Your task to perform on an android device: turn off sleep mode Image 0: 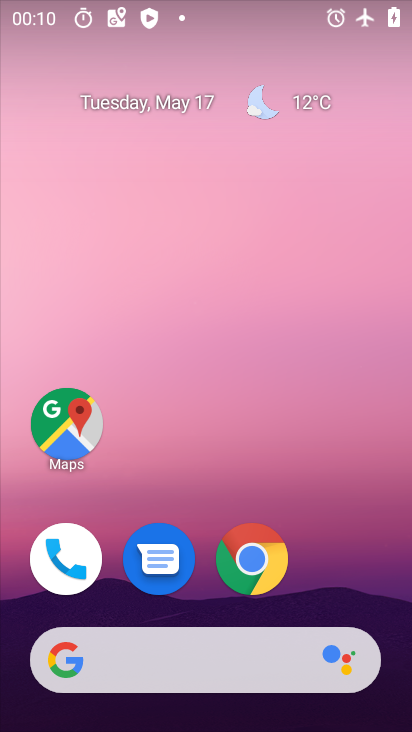
Step 0: drag from (246, 13) to (293, 610)
Your task to perform on an android device: turn off sleep mode Image 1: 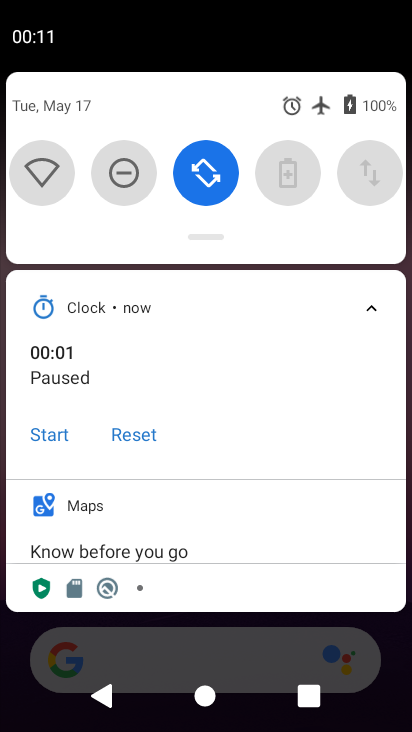
Step 1: press home button
Your task to perform on an android device: turn off sleep mode Image 2: 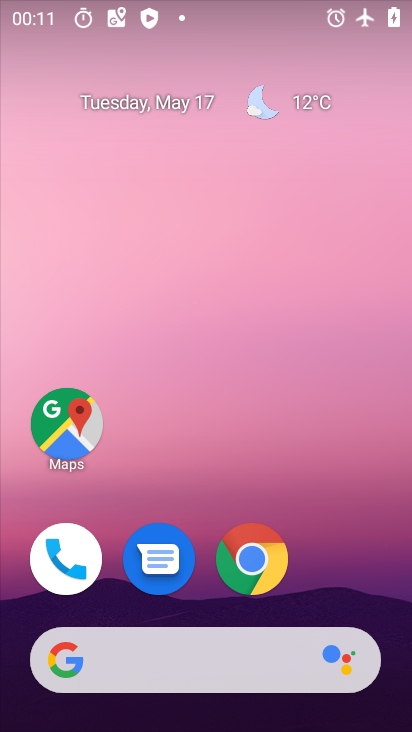
Step 2: drag from (323, 434) to (285, 63)
Your task to perform on an android device: turn off sleep mode Image 3: 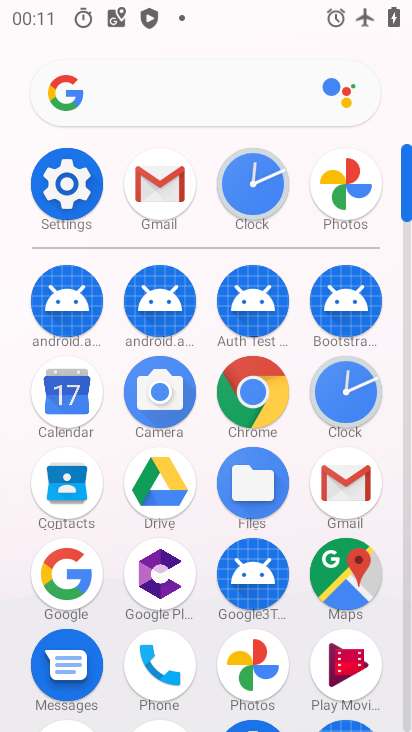
Step 3: click (65, 180)
Your task to perform on an android device: turn off sleep mode Image 4: 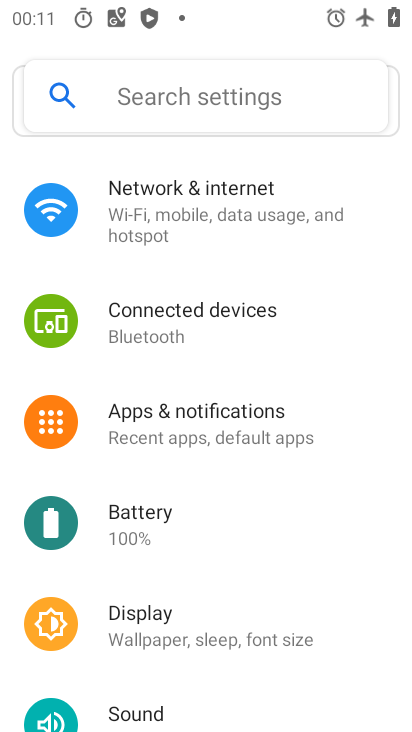
Step 4: click (225, 622)
Your task to perform on an android device: turn off sleep mode Image 5: 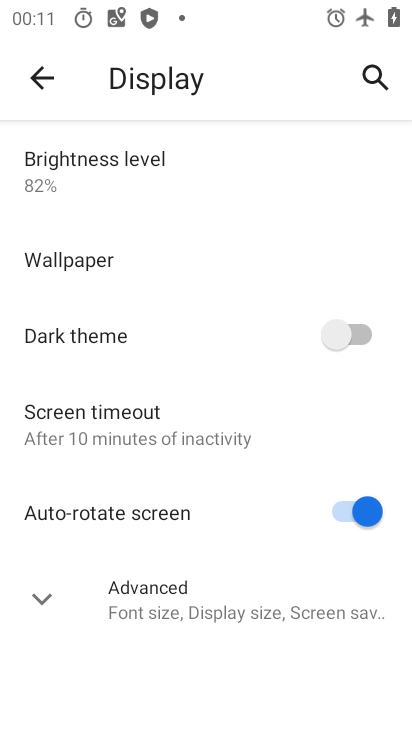
Step 5: click (97, 432)
Your task to perform on an android device: turn off sleep mode Image 6: 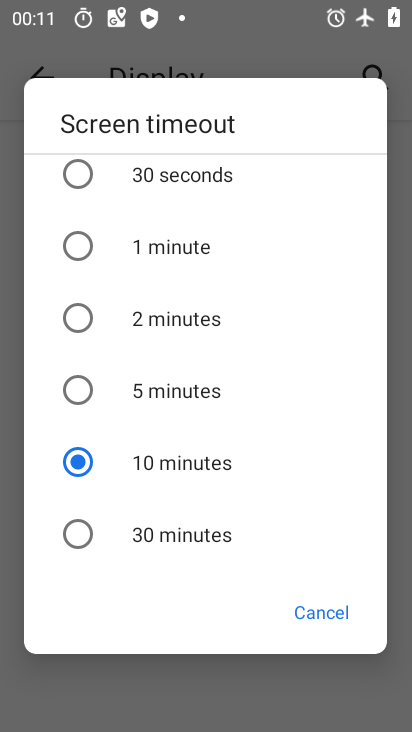
Step 6: task complete